Your task to perform on an android device: toggle notification dots Image 0: 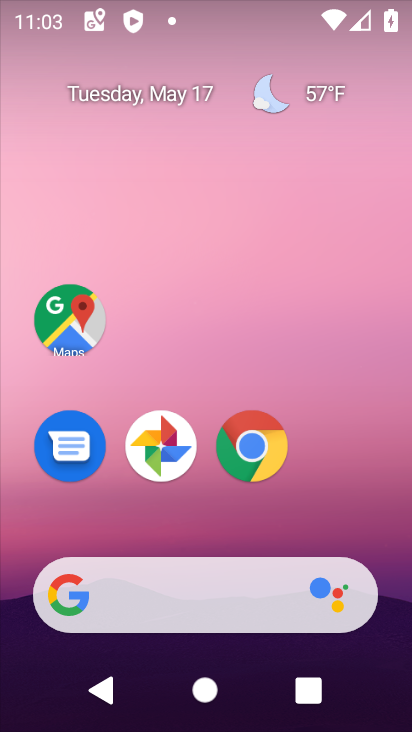
Step 0: drag from (159, 590) to (182, 186)
Your task to perform on an android device: toggle notification dots Image 1: 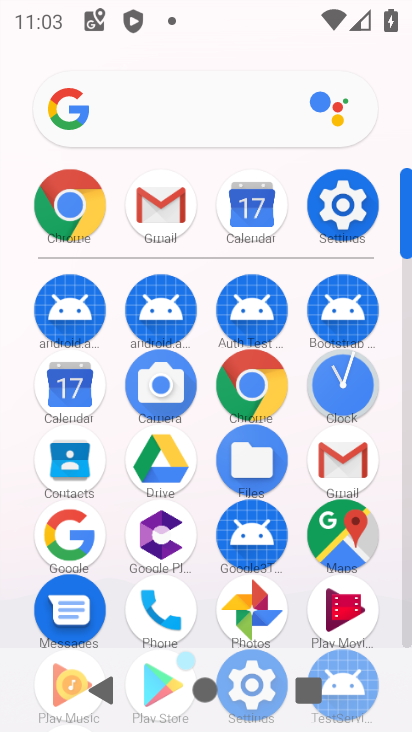
Step 1: click (348, 190)
Your task to perform on an android device: toggle notification dots Image 2: 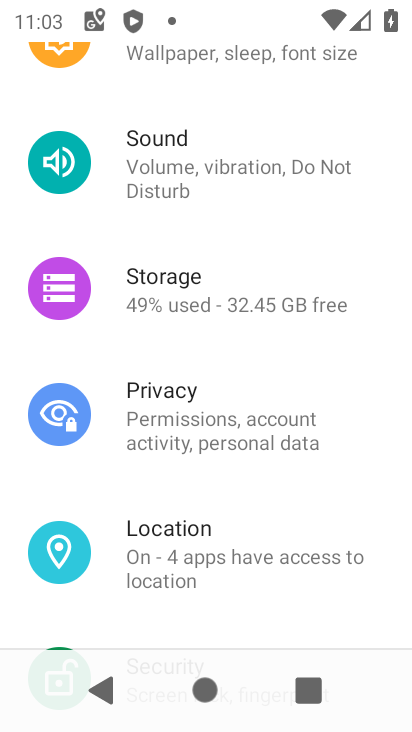
Step 2: drag from (189, 206) to (318, 538)
Your task to perform on an android device: toggle notification dots Image 3: 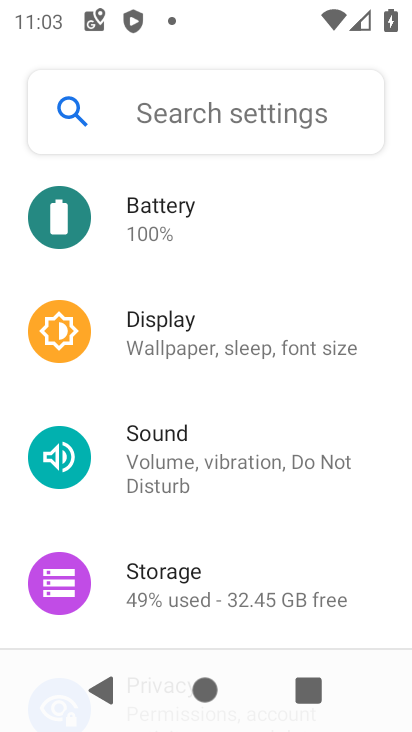
Step 3: drag from (197, 178) to (50, 711)
Your task to perform on an android device: toggle notification dots Image 4: 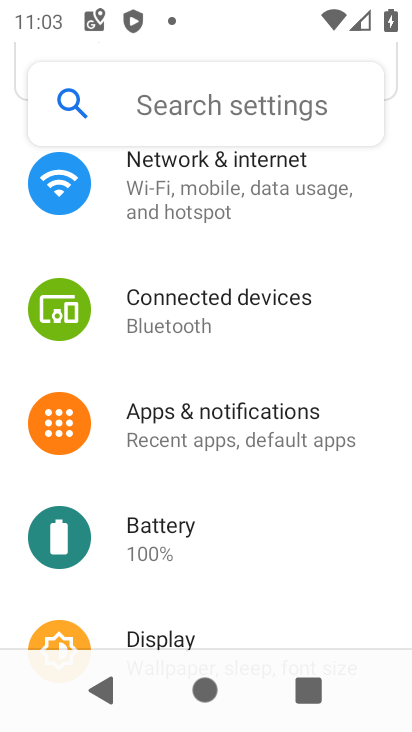
Step 4: click (139, 430)
Your task to perform on an android device: toggle notification dots Image 5: 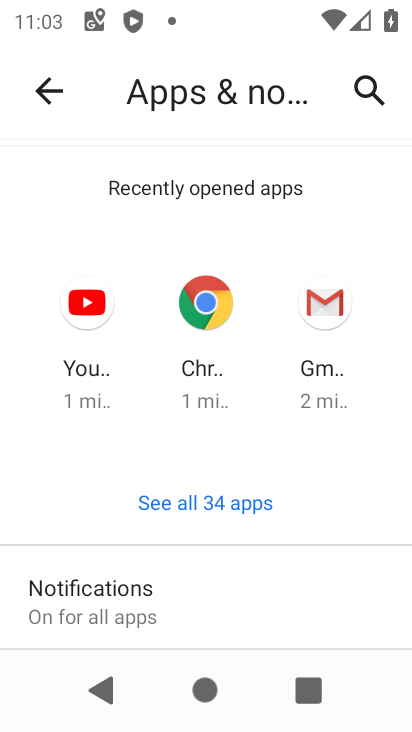
Step 5: drag from (129, 568) to (118, 265)
Your task to perform on an android device: toggle notification dots Image 6: 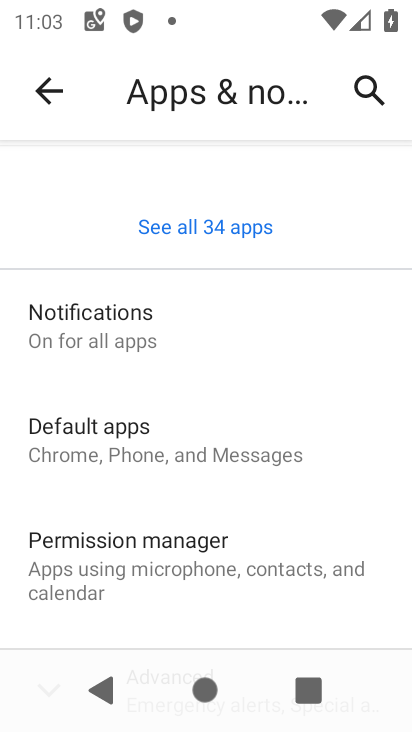
Step 6: click (81, 342)
Your task to perform on an android device: toggle notification dots Image 7: 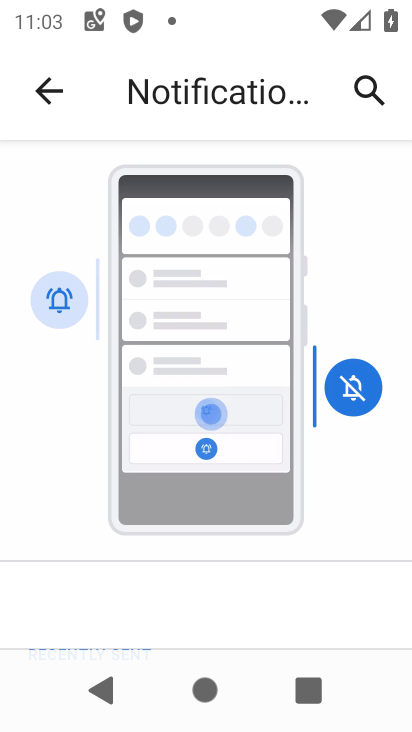
Step 7: drag from (102, 551) to (151, 140)
Your task to perform on an android device: toggle notification dots Image 8: 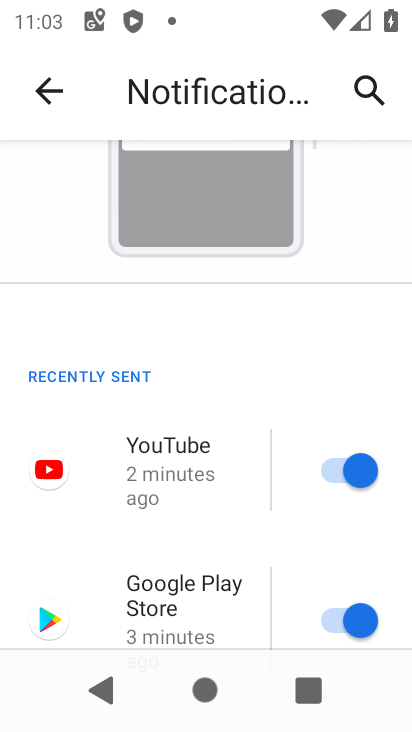
Step 8: drag from (168, 621) to (151, 216)
Your task to perform on an android device: toggle notification dots Image 9: 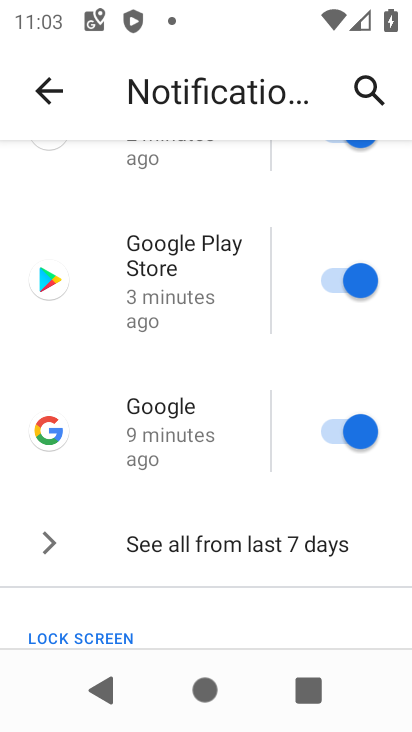
Step 9: drag from (151, 571) to (161, 26)
Your task to perform on an android device: toggle notification dots Image 10: 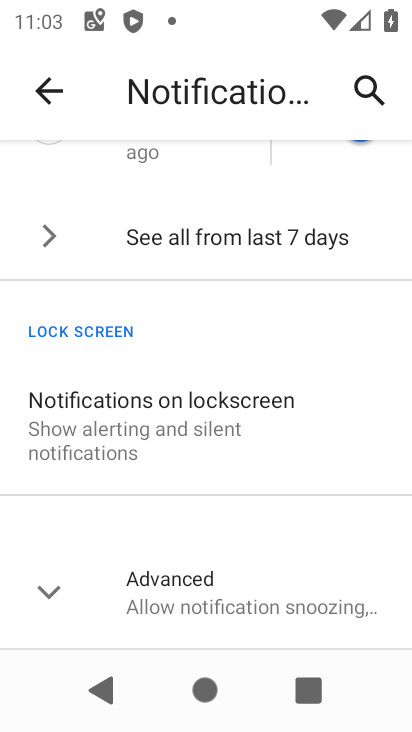
Step 10: click (144, 591)
Your task to perform on an android device: toggle notification dots Image 11: 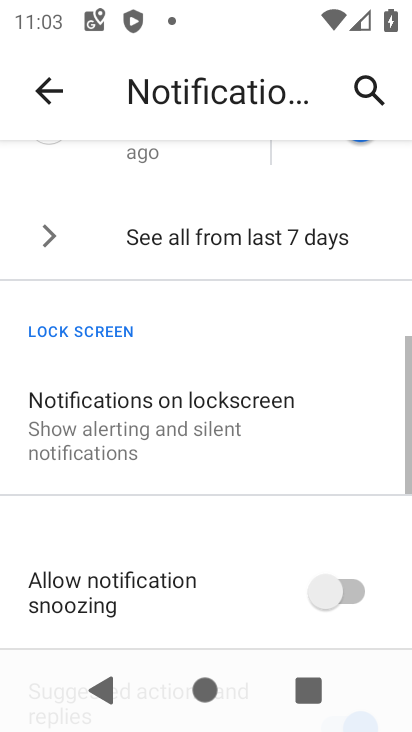
Step 11: drag from (113, 520) to (99, 159)
Your task to perform on an android device: toggle notification dots Image 12: 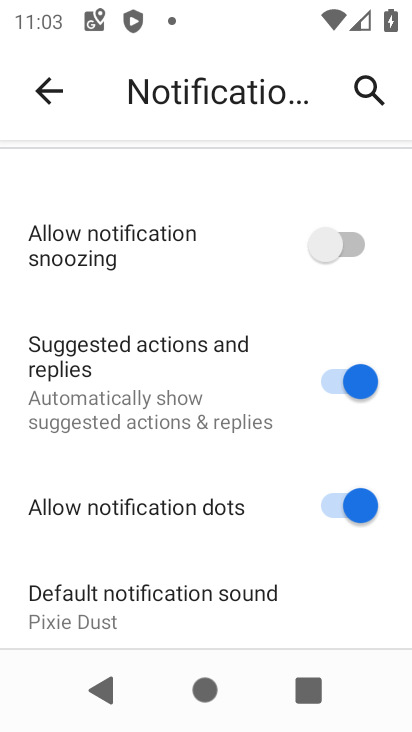
Step 12: click (344, 513)
Your task to perform on an android device: toggle notification dots Image 13: 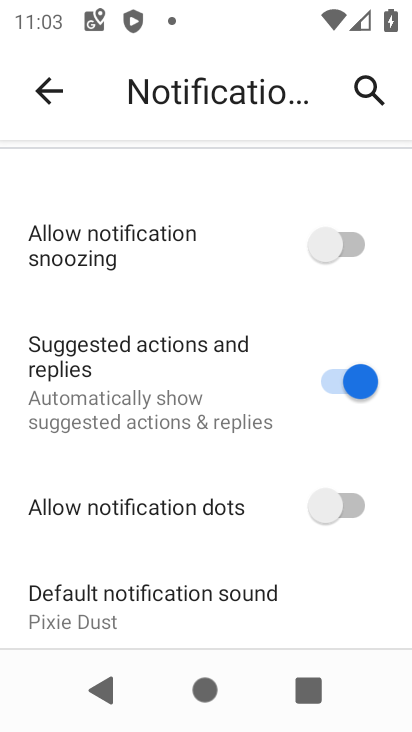
Step 13: task complete